Your task to perform on an android device: Go to location settings Image 0: 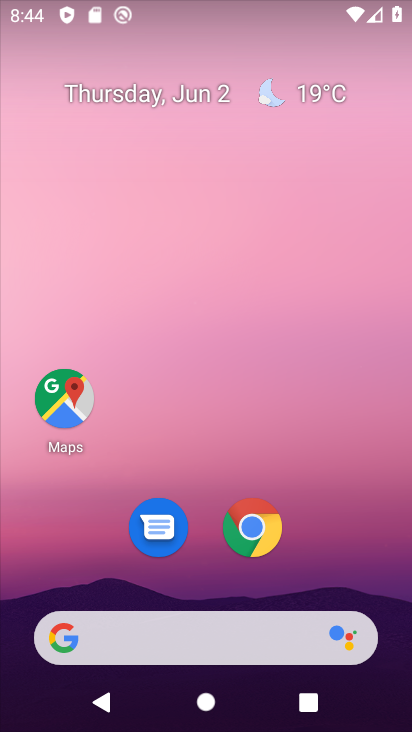
Step 0: drag from (351, 549) to (314, 140)
Your task to perform on an android device: Go to location settings Image 1: 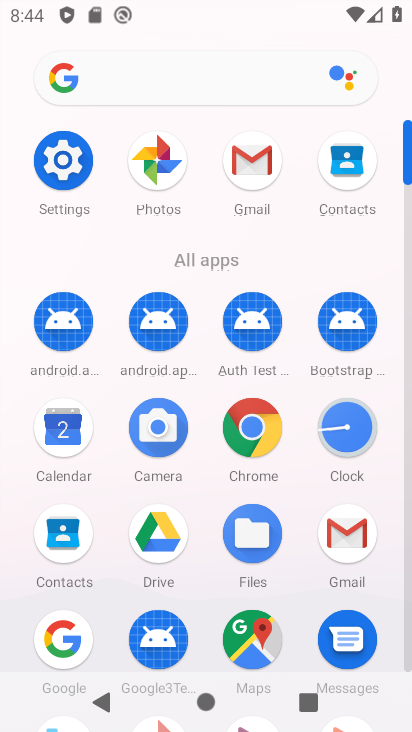
Step 1: click (76, 165)
Your task to perform on an android device: Go to location settings Image 2: 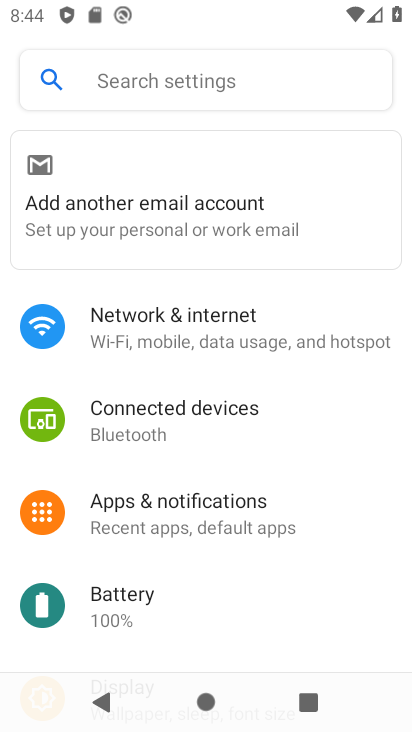
Step 2: drag from (238, 602) to (308, 111)
Your task to perform on an android device: Go to location settings Image 3: 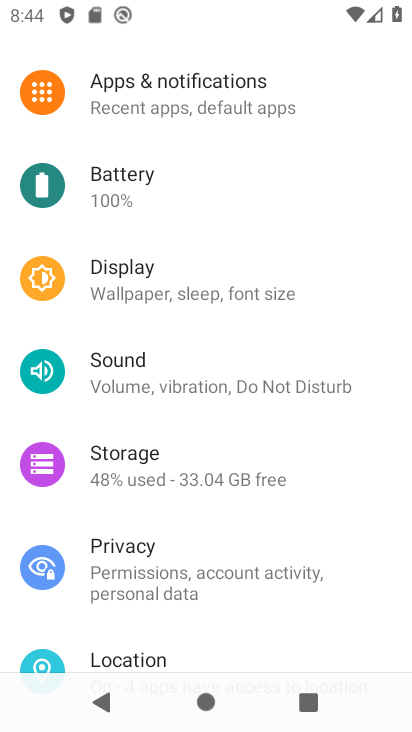
Step 3: drag from (232, 555) to (286, 226)
Your task to perform on an android device: Go to location settings Image 4: 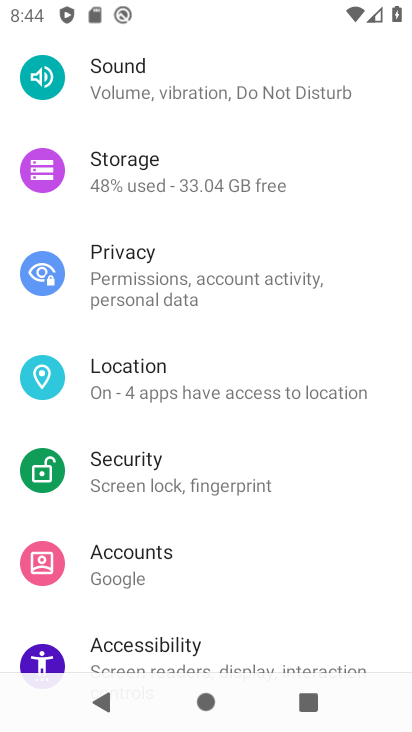
Step 4: click (145, 378)
Your task to perform on an android device: Go to location settings Image 5: 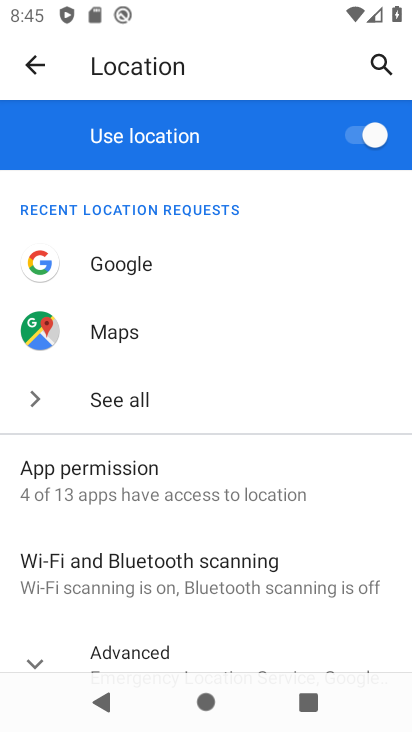
Step 5: task complete